Your task to perform on an android device: turn off improve location accuracy Image 0: 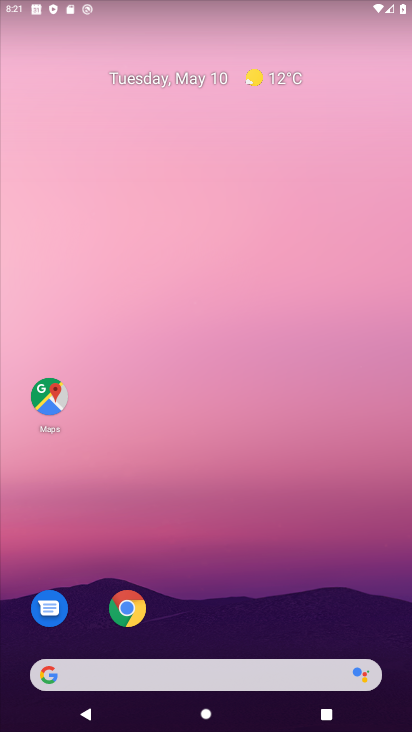
Step 0: drag from (212, 666) to (234, 201)
Your task to perform on an android device: turn off improve location accuracy Image 1: 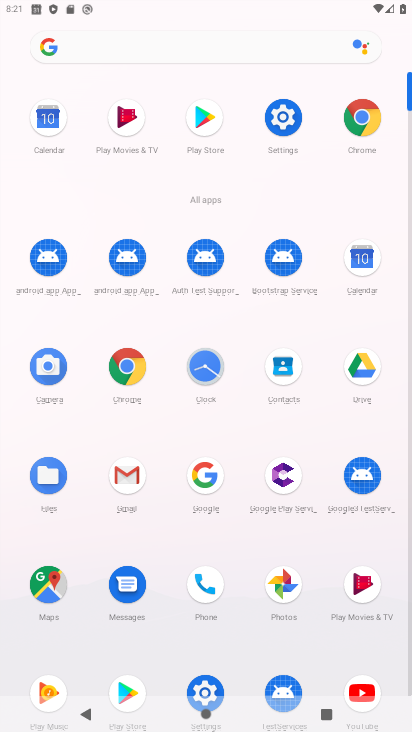
Step 1: click (288, 115)
Your task to perform on an android device: turn off improve location accuracy Image 2: 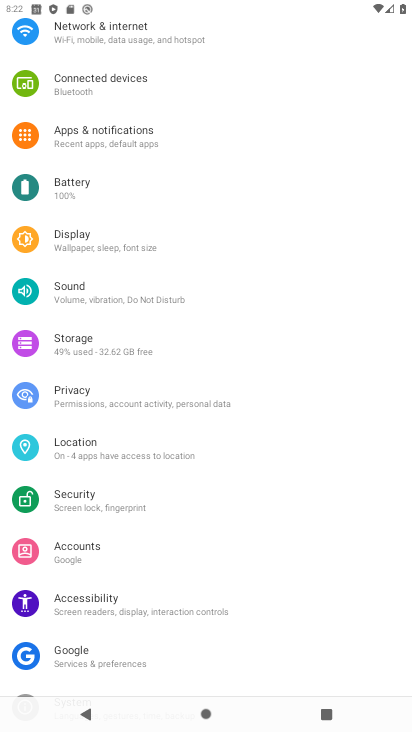
Step 2: click (126, 441)
Your task to perform on an android device: turn off improve location accuracy Image 3: 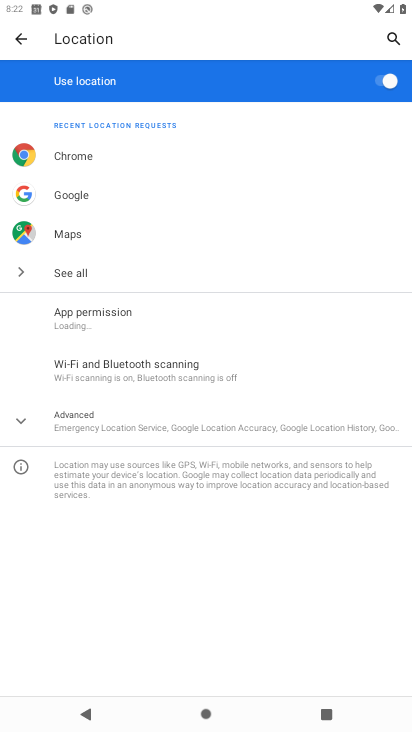
Step 3: click (116, 426)
Your task to perform on an android device: turn off improve location accuracy Image 4: 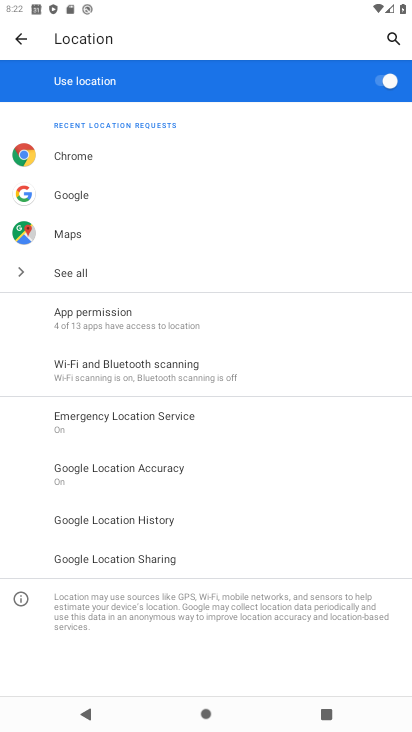
Step 4: click (132, 465)
Your task to perform on an android device: turn off improve location accuracy Image 5: 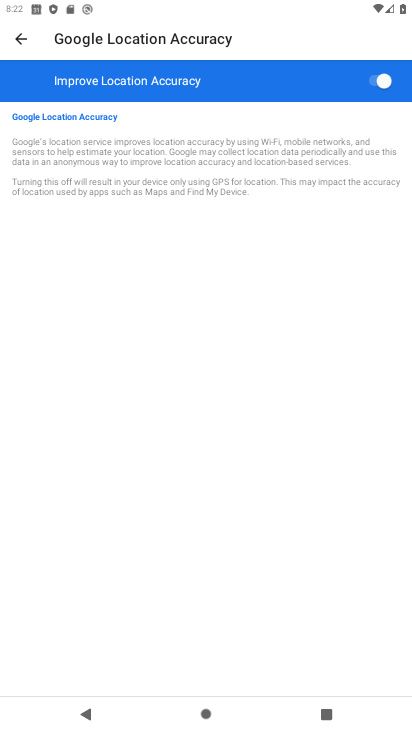
Step 5: click (381, 84)
Your task to perform on an android device: turn off improve location accuracy Image 6: 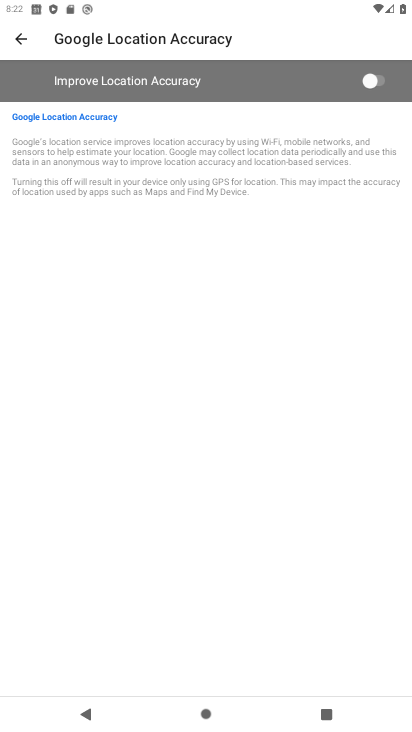
Step 6: task complete